Your task to perform on an android device: turn pop-ups off in chrome Image 0: 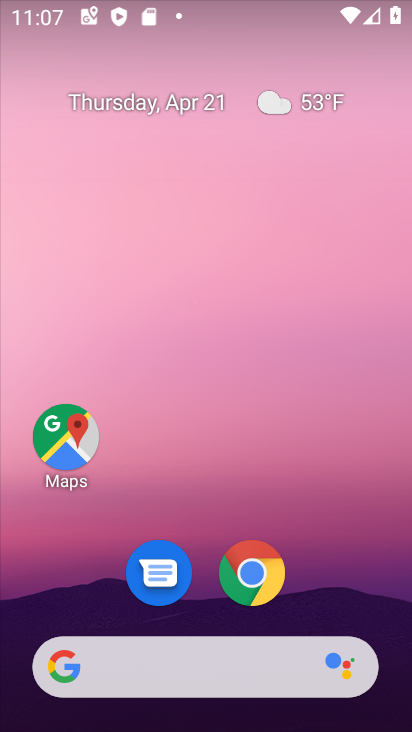
Step 0: drag from (316, 513) to (330, 90)
Your task to perform on an android device: turn pop-ups off in chrome Image 1: 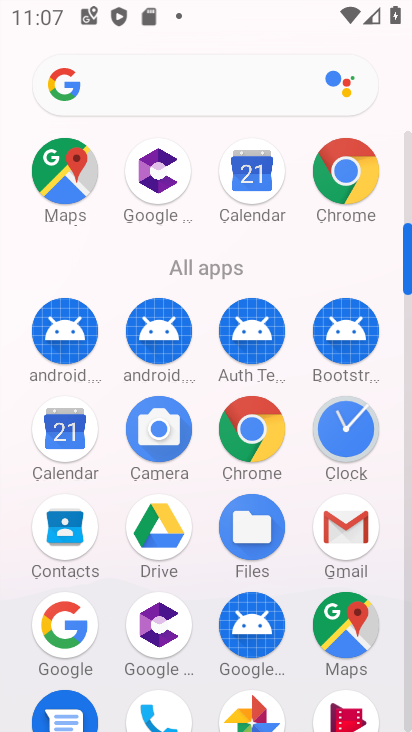
Step 1: click (256, 432)
Your task to perform on an android device: turn pop-ups off in chrome Image 2: 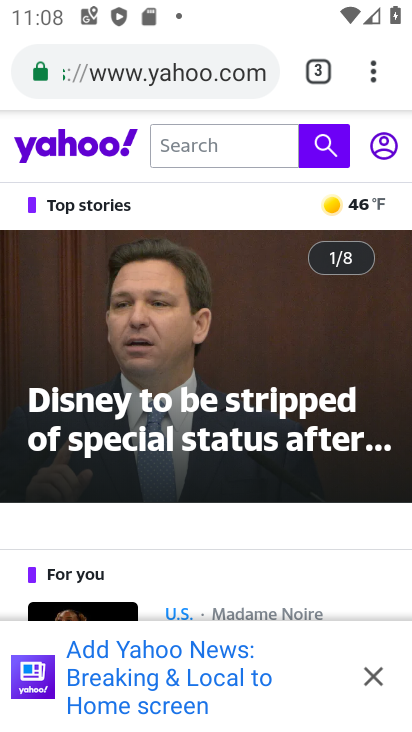
Step 2: drag from (369, 72) to (172, 569)
Your task to perform on an android device: turn pop-ups off in chrome Image 3: 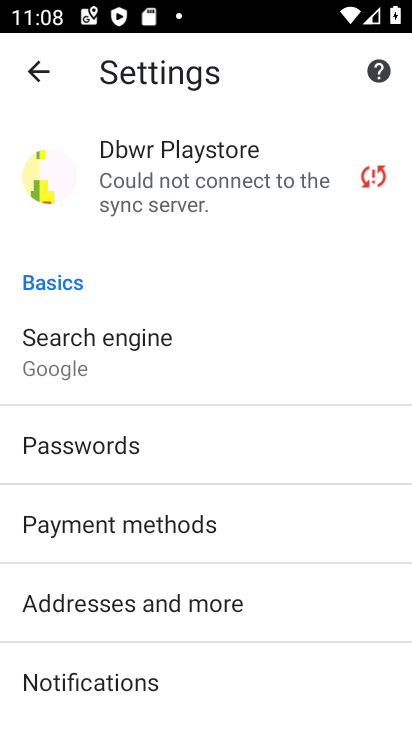
Step 3: drag from (293, 656) to (307, 301)
Your task to perform on an android device: turn pop-ups off in chrome Image 4: 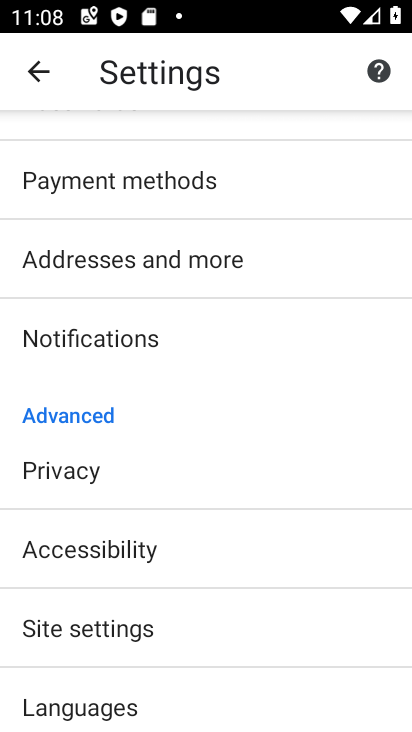
Step 4: click (89, 629)
Your task to perform on an android device: turn pop-ups off in chrome Image 5: 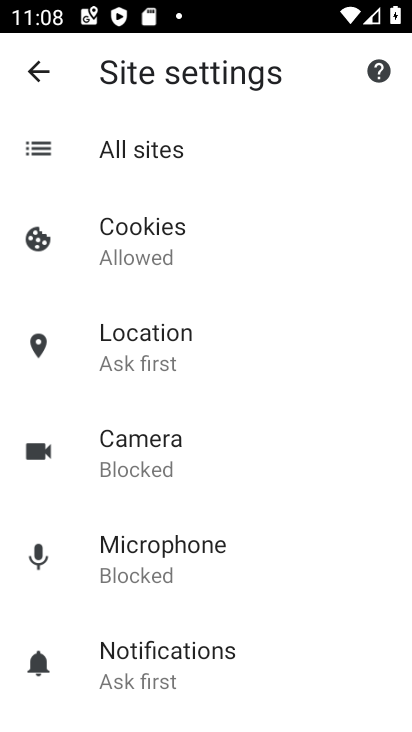
Step 5: drag from (331, 565) to (335, 248)
Your task to perform on an android device: turn pop-ups off in chrome Image 6: 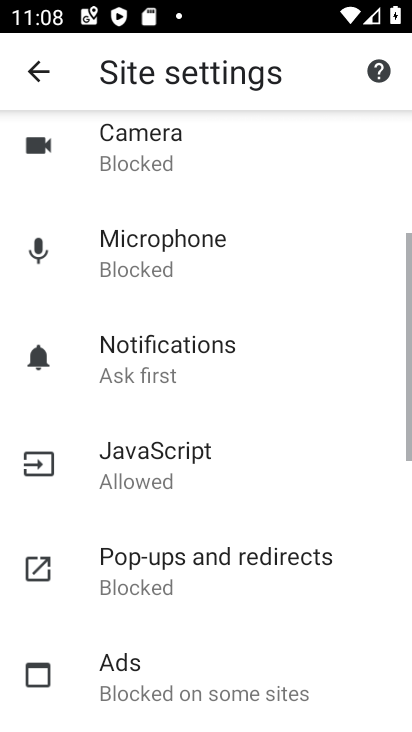
Step 6: click (169, 555)
Your task to perform on an android device: turn pop-ups off in chrome Image 7: 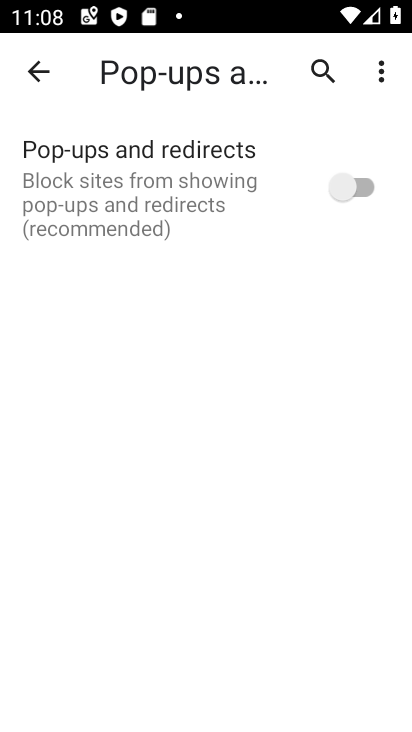
Step 7: task complete